Your task to perform on an android device: Is it going to rain today? Image 0: 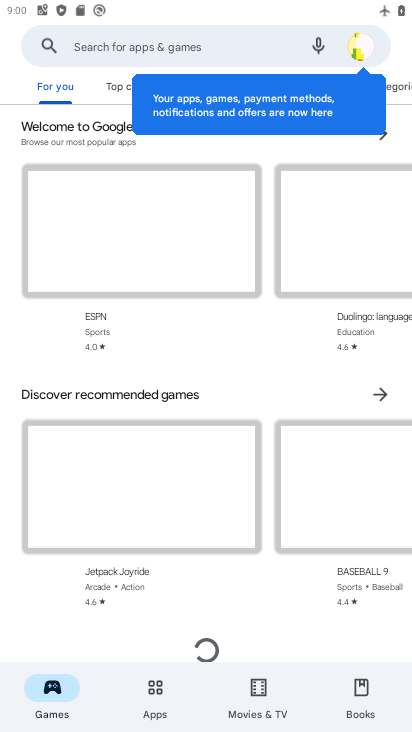
Step 0: press home button
Your task to perform on an android device: Is it going to rain today? Image 1: 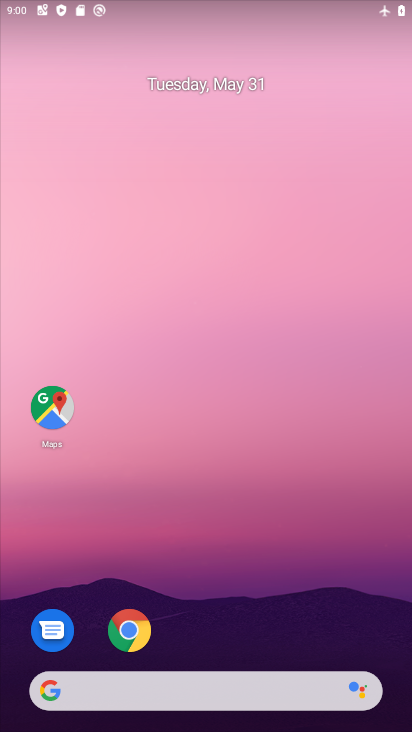
Step 1: click (143, 630)
Your task to perform on an android device: Is it going to rain today? Image 2: 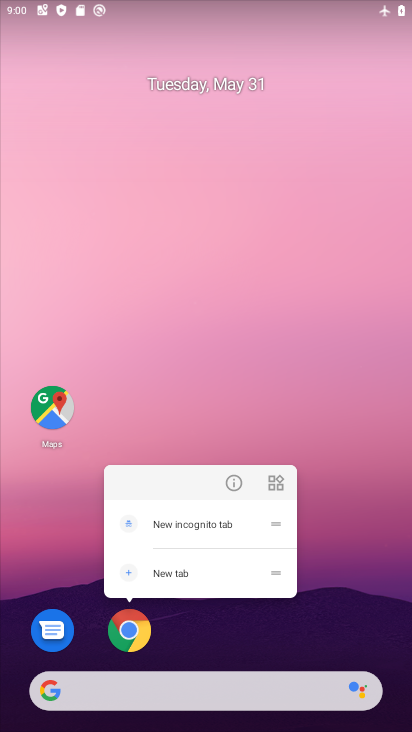
Step 2: click (111, 623)
Your task to perform on an android device: Is it going to rain today? Image 3: 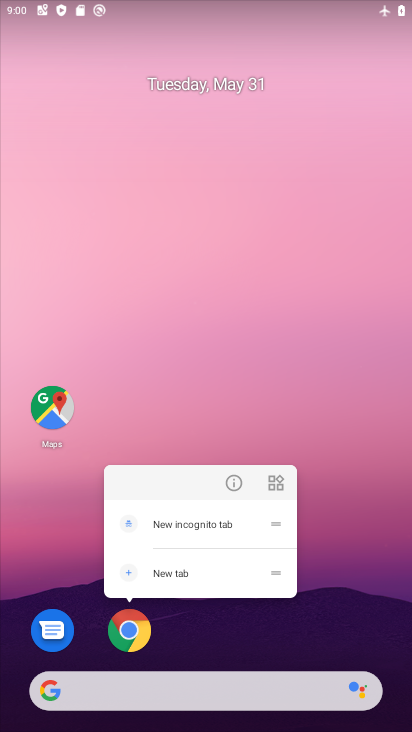
Step 3: click (133, 625)
Your task to perform on an android device: Is it going to rain today? Image 4: 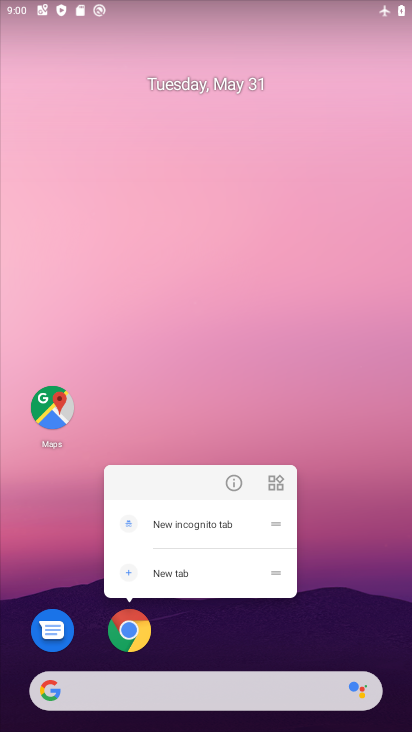
Step 4: click (133, 625)
Your task to perform on an android device: Is it going to rain today? Image 5: 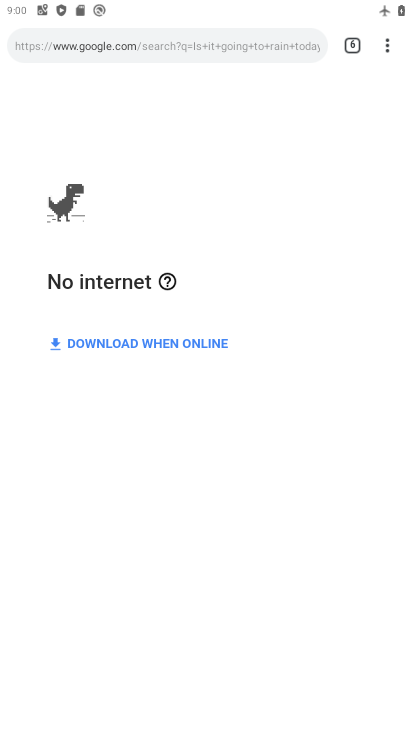
Step 5: click (384, 47)
Your task to perform on an android device: Is it going to rain today? Image 6: 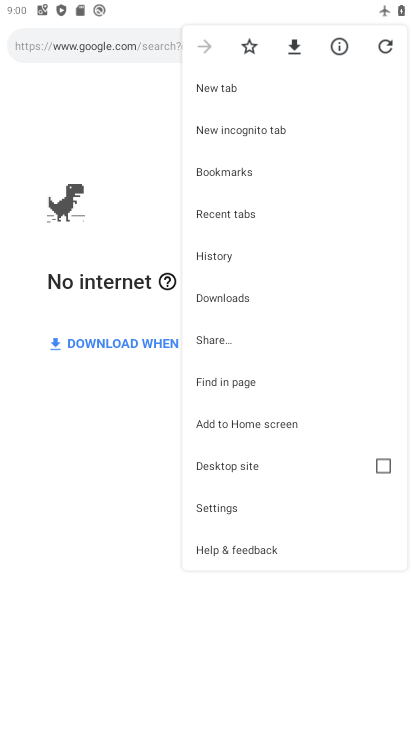
Step 6: click (219, 85)
Your task to perform on an android device: Is it going to rain today? Image 7: 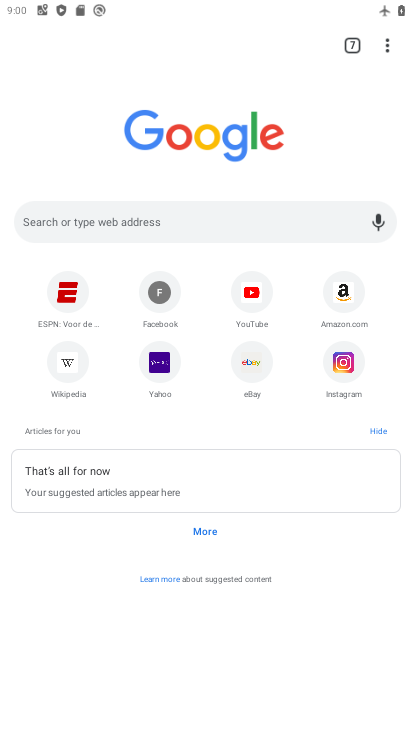
Step 7: click (221, 219)
Your task to perform on an android device: Is it going to rain today? Image 8: 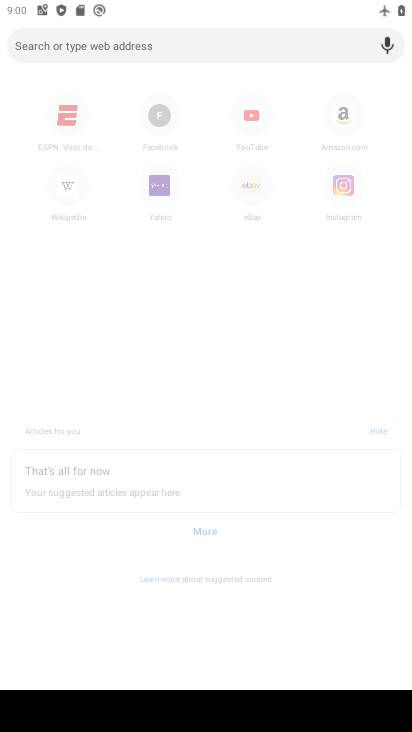
Step 8: type "Is it going to rain today?"
Your task to perform on an android device: Is it going to rain today? Image 9: 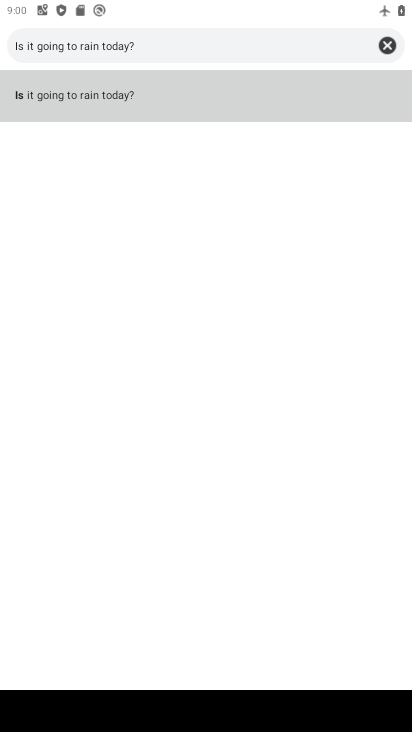
Step 9: click (168, 94)
Your task to perform on an android device: Is it going to rain today? Image 10: 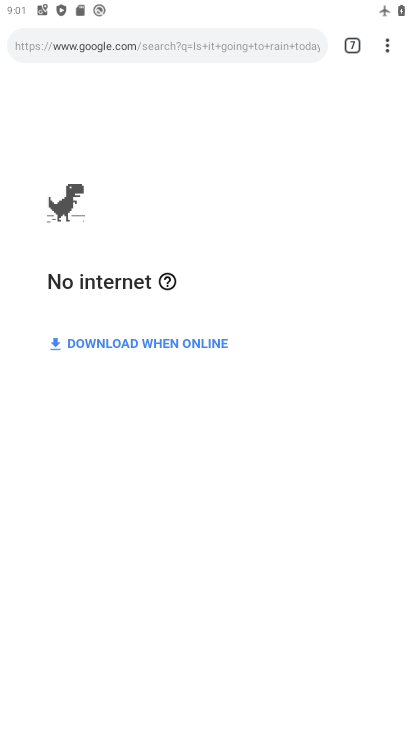
Step 10: task complete